Your task to perform on an android device: Open eBay Image 0: 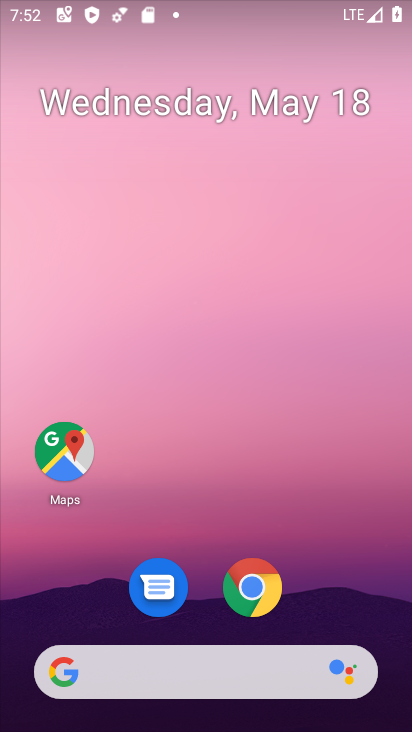
Step 0: click (254, 589)
Your task to perform on an android device: Open eBay Image 1: 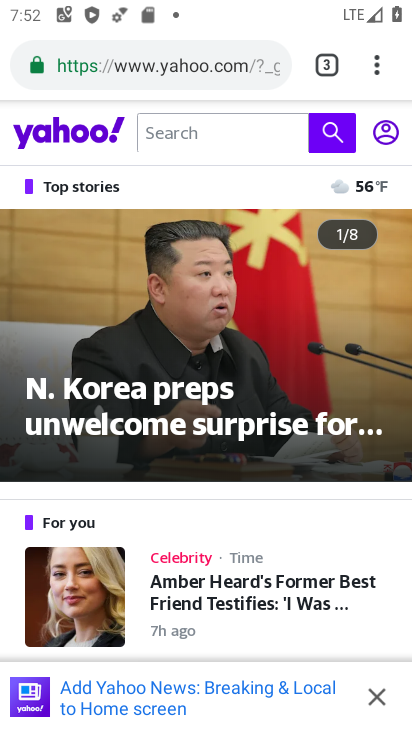
Step 1: click (323, 59)
Your task to perform on an android device: Open eBay Image 2: 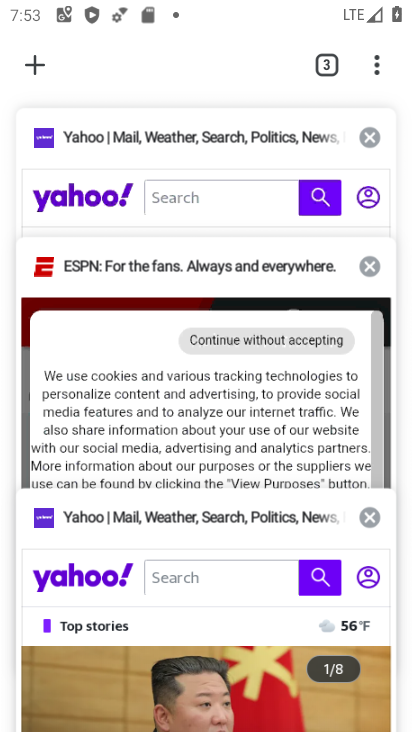
Step 2: click (42, 58)
Your task to perform on an android device: Open eBay Image 3: 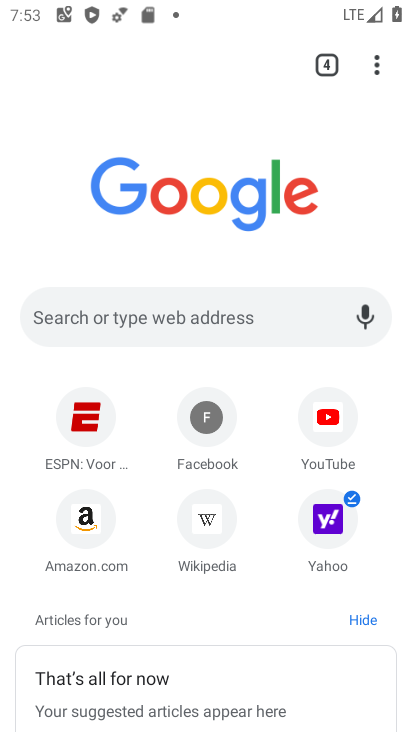
Step 3: click (140, 319)
Your task to perform on an android device: Open eBay Image 4: 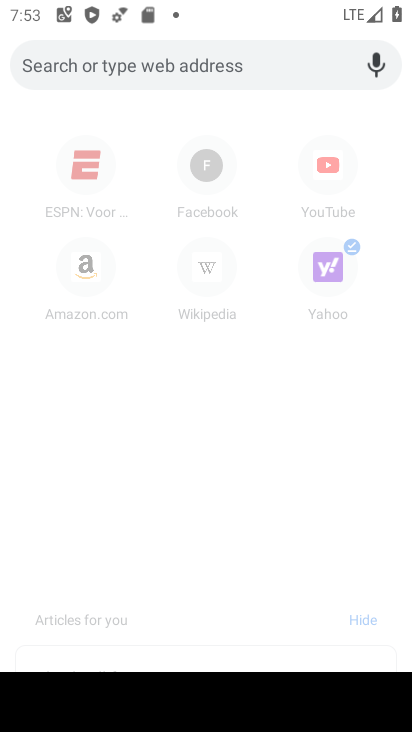
Step 4: type "ebay"
Your task to perform on an android device: Open eBay Image 5: 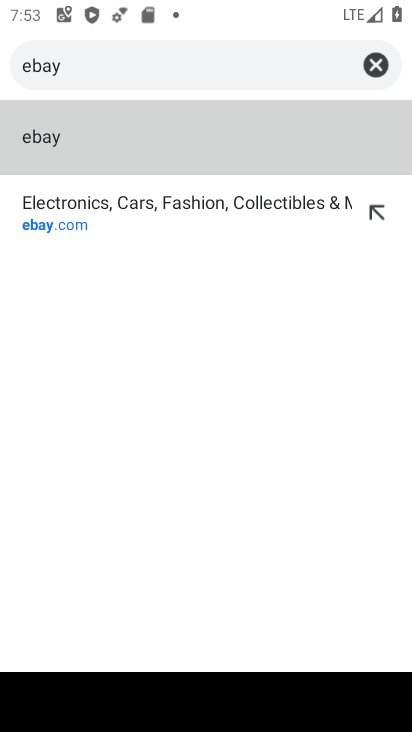
Step 5: click (283, 216)
Your task to perform on an android device: Open eBay Image 6: 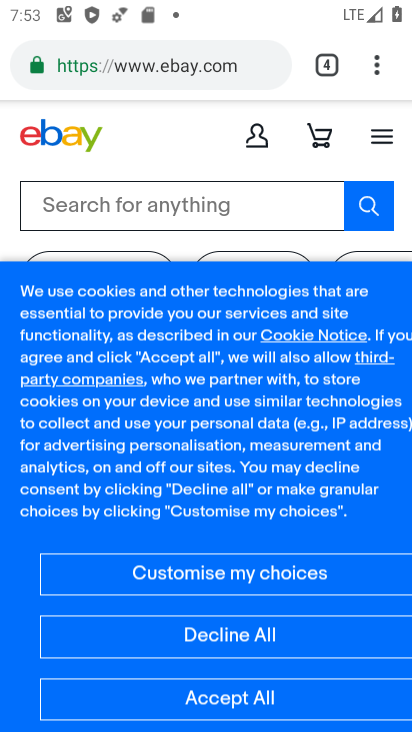
Step 6: task complete